Your task to perform on an android device: Go to battery settings Image 0: 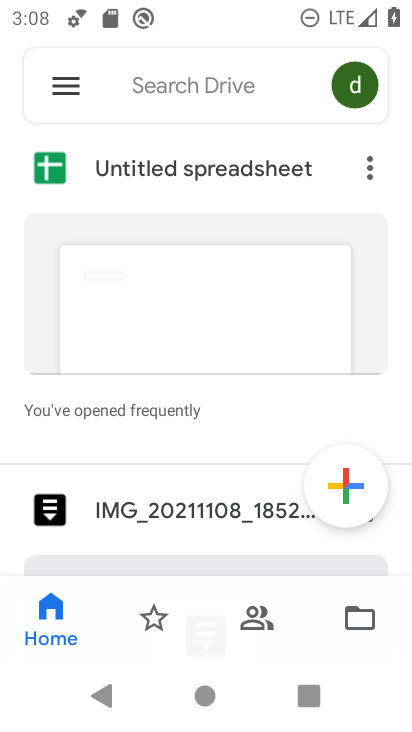
Step 0: press home button
Your task to perform on an android device: Go to battery settings Image 1: 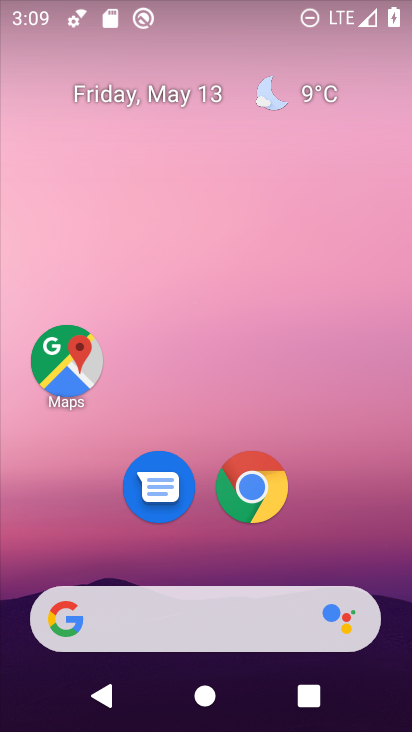
Step 1: drag from (206, 614) to (232, 107)
Your task to perform on an android device: Go to battery settings Image 2: 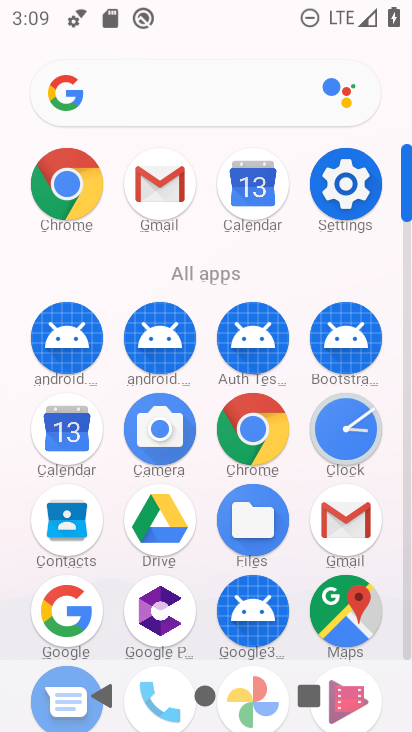
Step 2: click (330, 184)
Your task to perform on an android device: Go to battery settings Image 3: 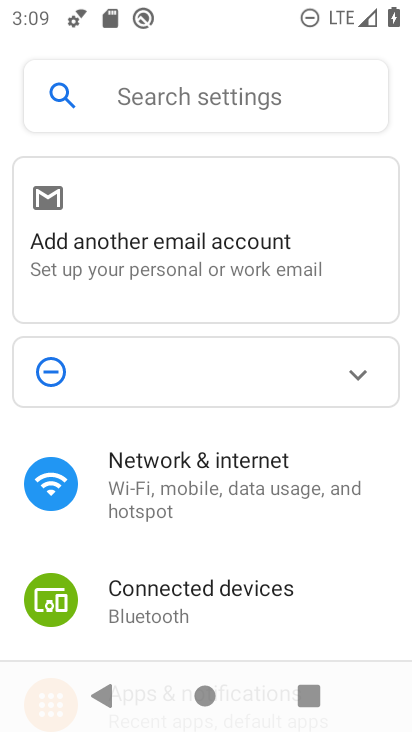
Step 3: drag from (226, 529) to (232, 9)
Your task to perform on an android device: Go to battery settings Image 4: 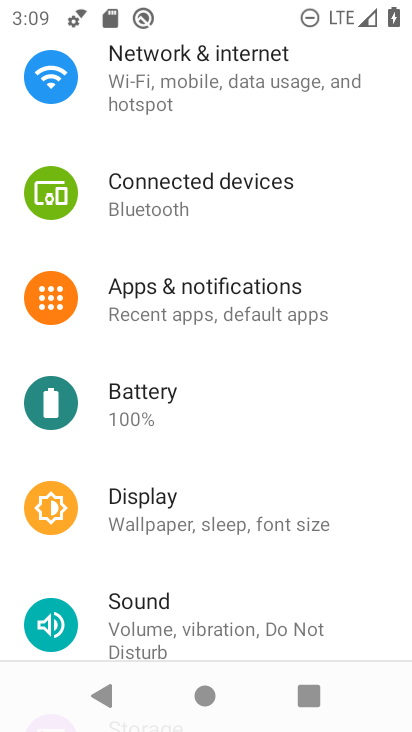
Step 4: click (132, 397)
Your task to perform on an android device: Go to battery settings Image 5: 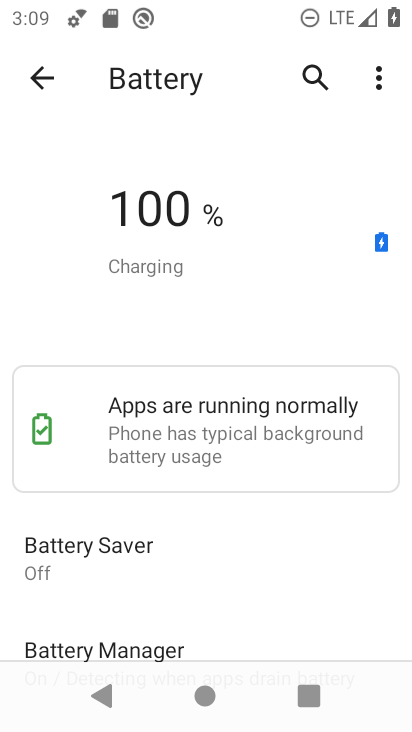
Step 5: task complete